Your task to perform on an android device: toggle pop-ups in chrome Image 0: 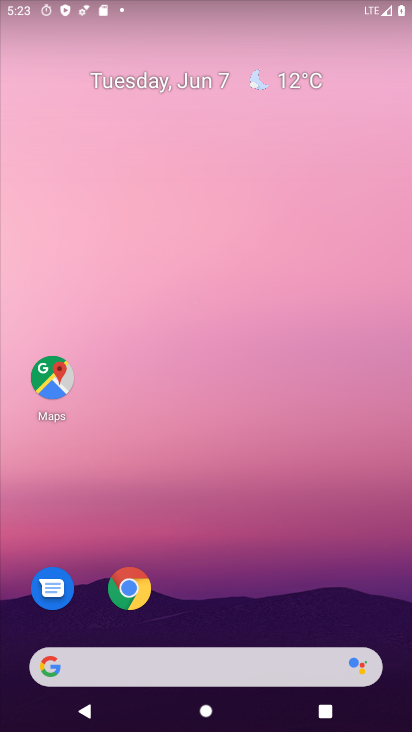
Step 0: click (129, 596)
Your task to perform on an android device: toggle pop-ups in chrome Image 1: 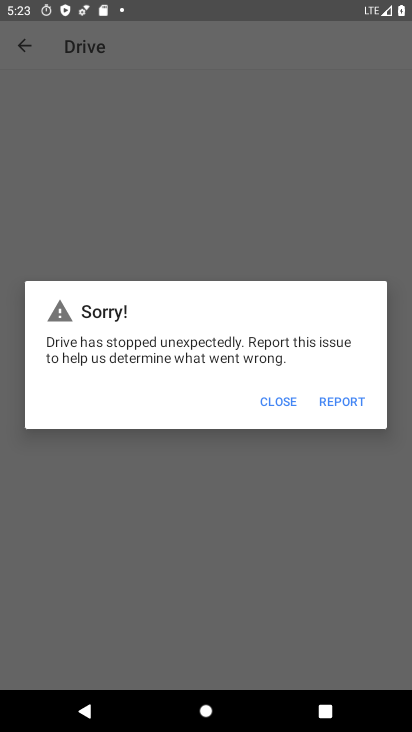
Step 1: press home button
Your task to perform on an android device: toggle pop-ups in chrome Image 2: 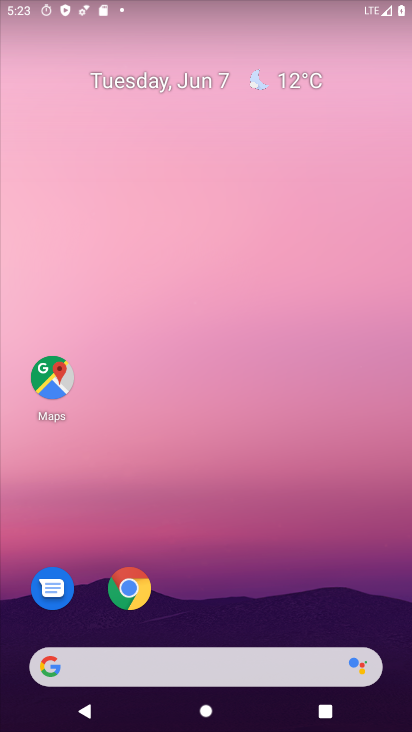
Step 2: click (124, 586)
Your task to perform on an android device: toggle pop-ups in chrome Image 3: 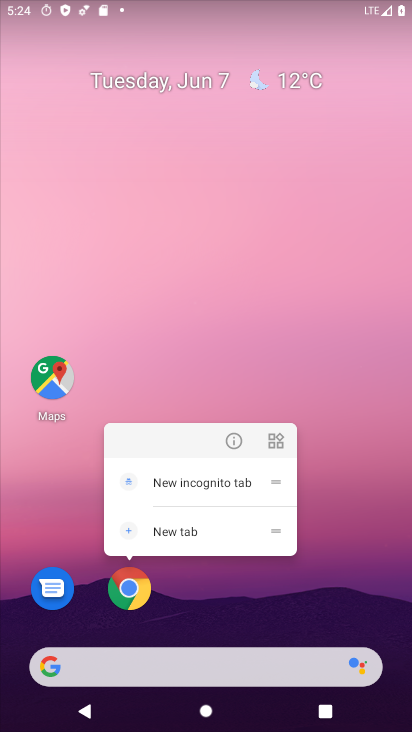
Step 3: click (127, 598)
Your task to perform on an android device: toggle pop-ups in chrome Image 4: 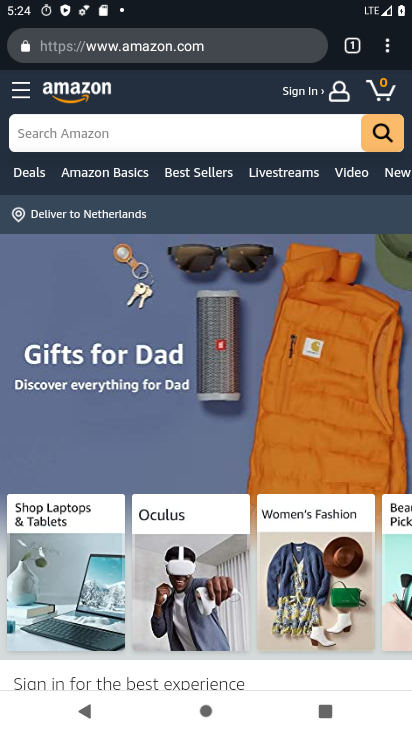
Step 4: click (387, 55)
Your task to perform on an android device: toggle pop-ups in chrome Image 5: 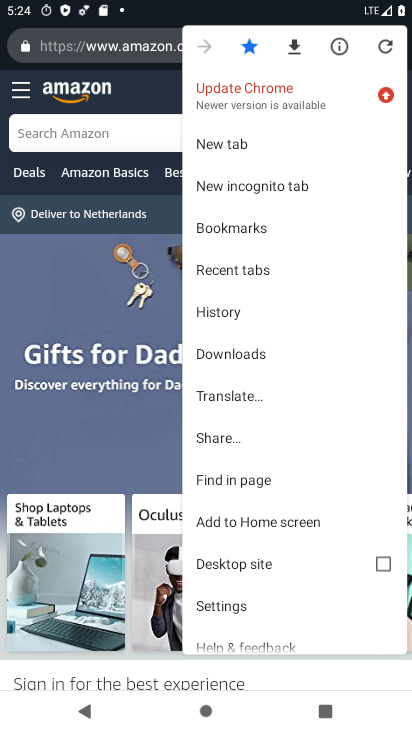
Step 5: click (235, 607)
Your task to perform on an android device: toggle pop-ups in chrome Image 6: 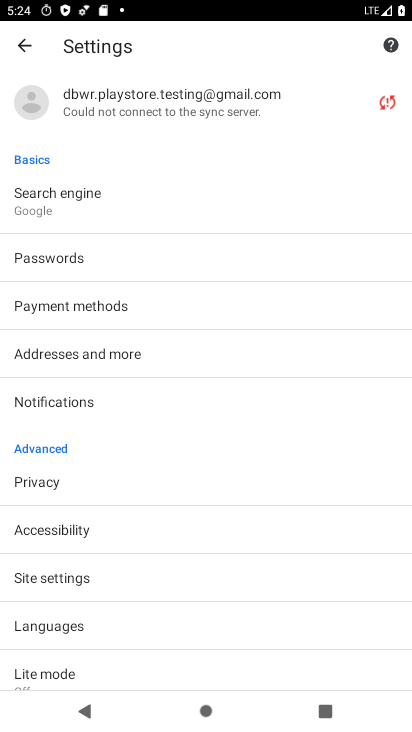
Step 6: drag from (97, 604) to (164, 260)
Your task to perform on an android device: toggle pop-ups in chrome Image 7: 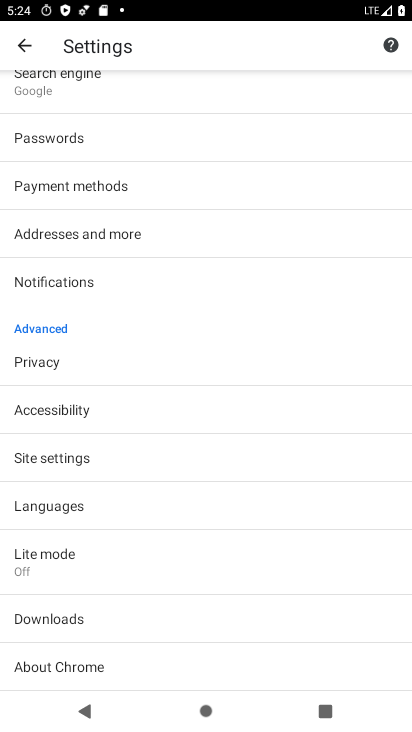
Step 7: click (51, 461)
Your task to perform on an android device: toggle pop-ups in chrome Image 8: 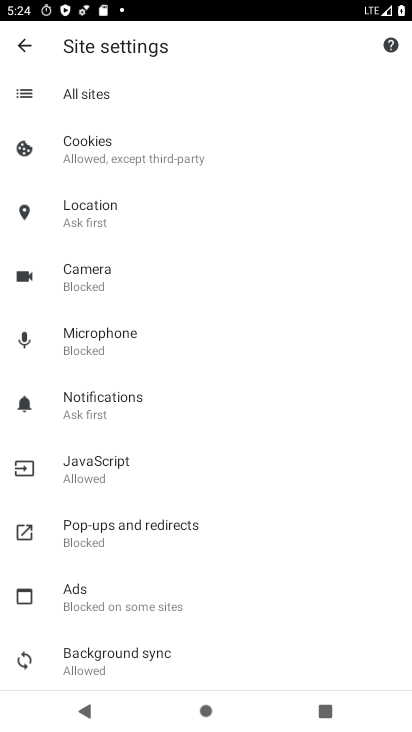
Step 8: click (151, 537)
Your task to perform on an android device: toggle pop-ups in chrome Image 9: 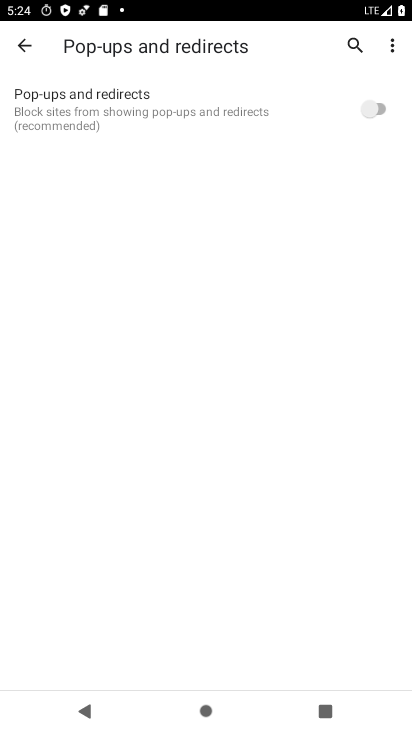
Step 9: click (388, 118)
Your task to perform on an android device: toggle pop-ups in chrome Image 10: 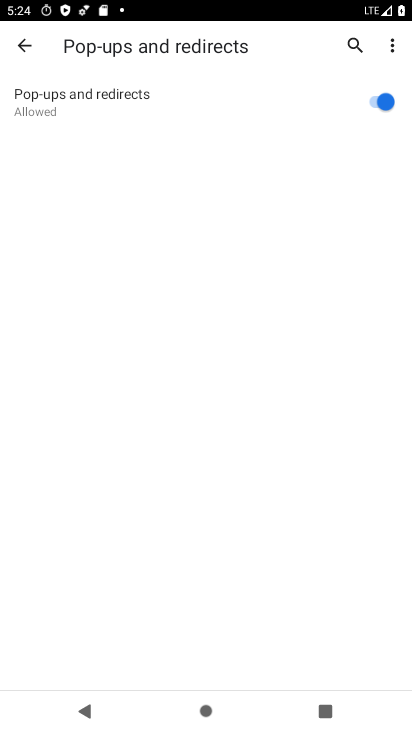
Step 10: task complete